Your task to perform on an android device: Open Amazon Image 0: 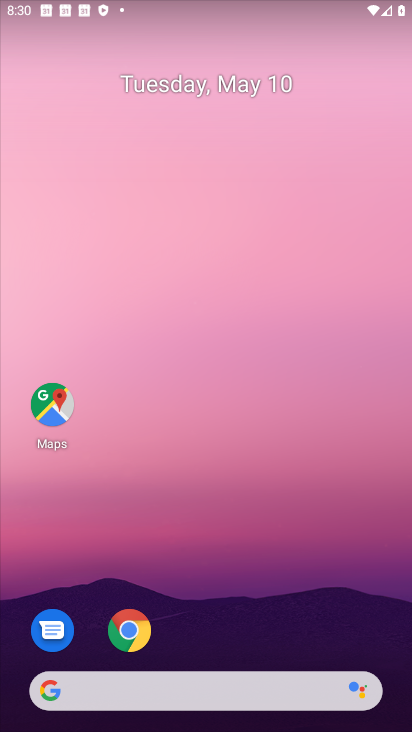
Step 0: click (241, 690)
Your task to perform on an android device: Open Amazon Image 1: 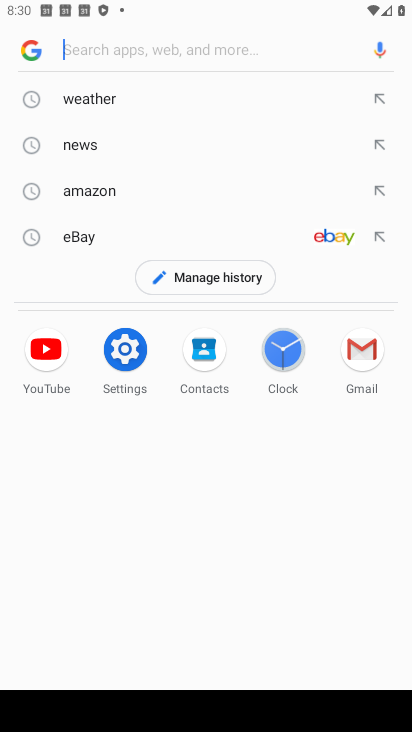
Step 1: click (184, 194)
Your task to perform on an android device: Open Amazon Image 2: 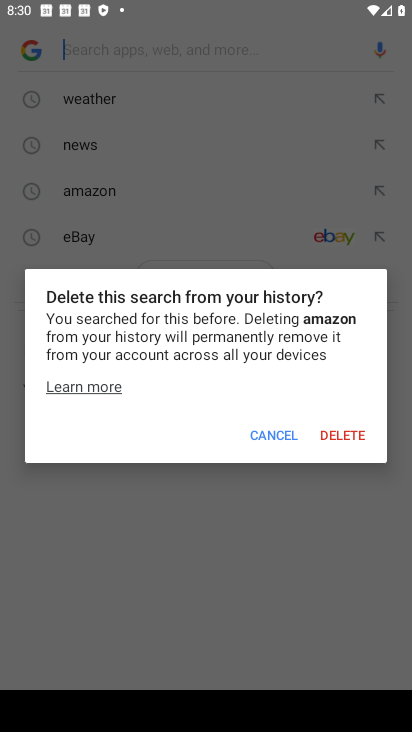
Step 2: click (279, 437)
Your task to perform on an android device: Open Amazon Image 3: 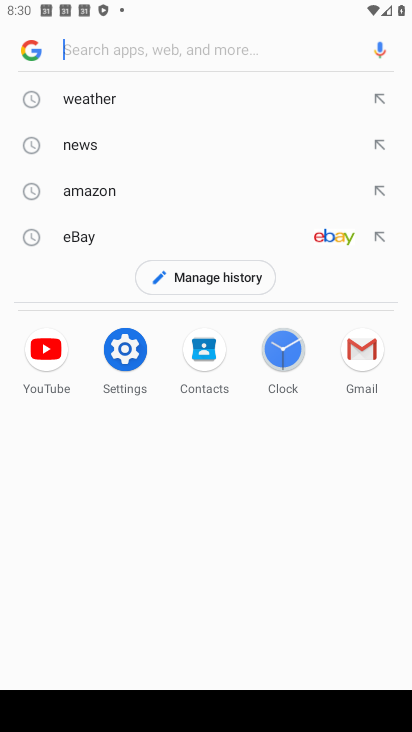
Step 3: click (236, 195)
Your task to perform on an android device: Open Amazon Image 4: 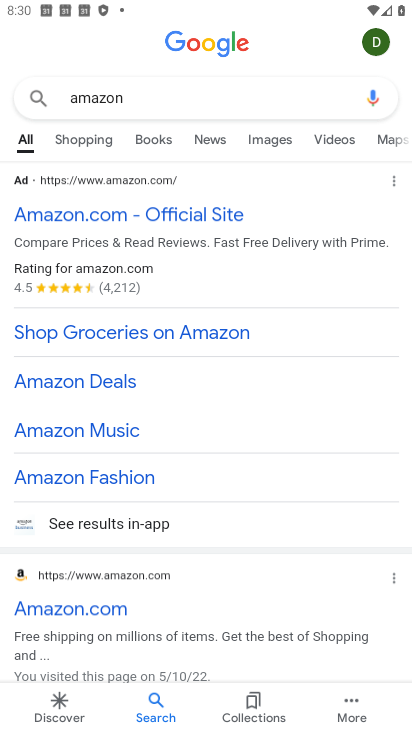
Step 4: click (159, 188)
Your task to perform on an android device: Open Amazon Image 5: 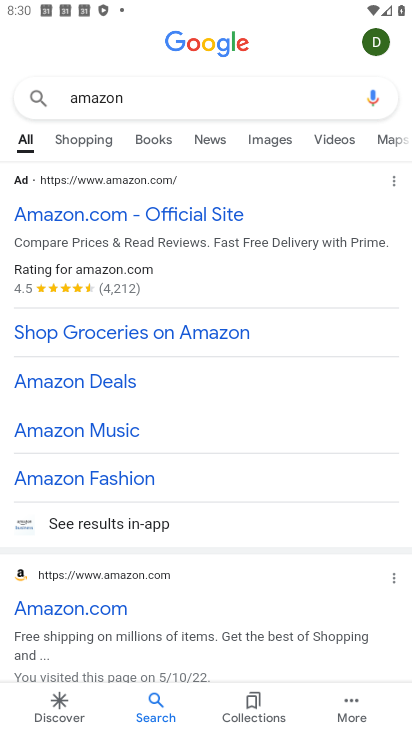
Step 5: click (124, 187)
Your task to perform on an android device: Open Amazon Image 6: 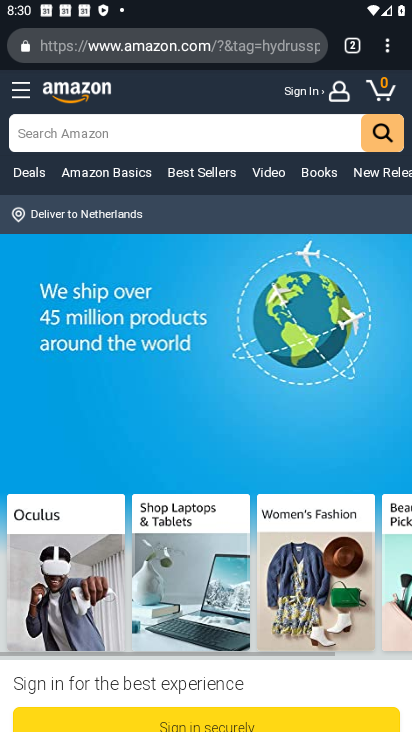
Step 6: task complete